Your task to perform on an android device: change timer sound Image 0: 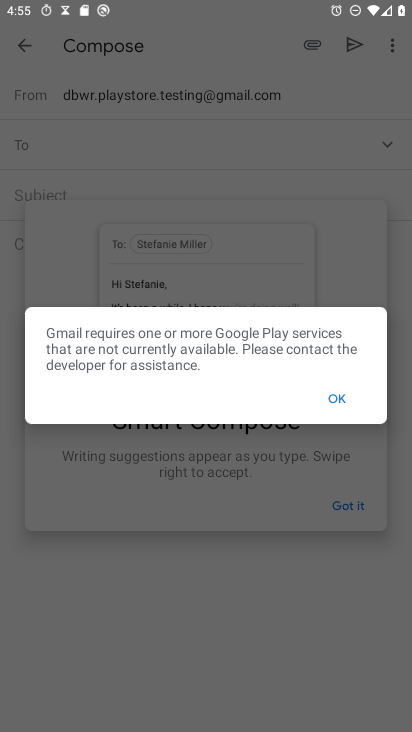
Step 0: press home button
Your task to perform on an android device: change timer sound Image 1: 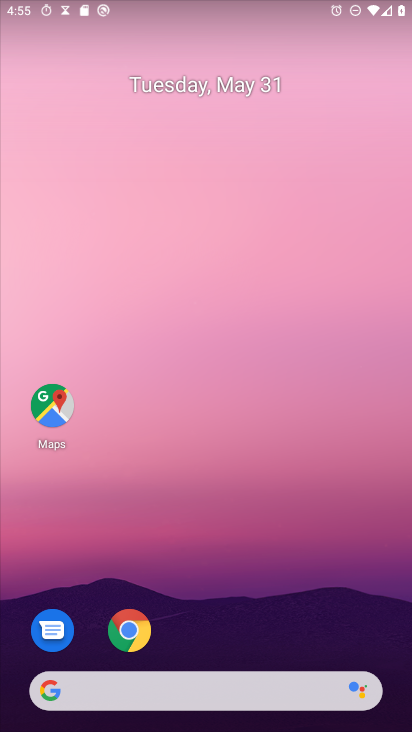
Step 1: drag from (266, 697) to (318, 38)
Your task to perform on an android device: change timer sound Image 2: 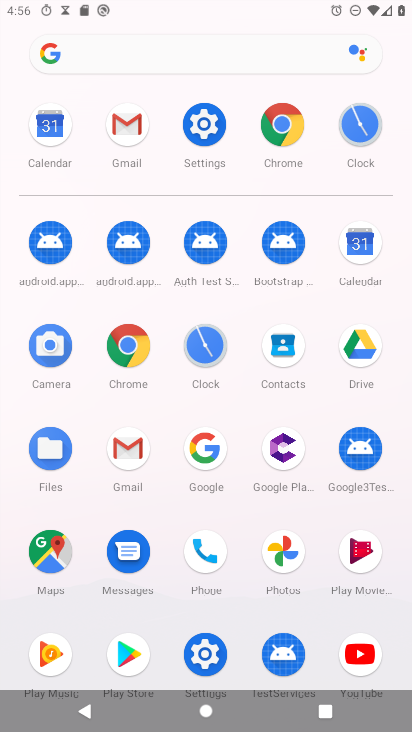
Step 2: click (204, 128)
Your task to perform on an android device: change timer sound Image 3: 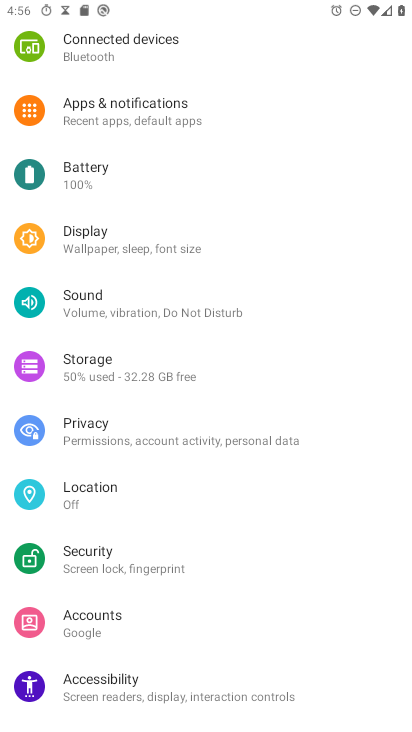
Step 3: drag from (164, 186) to (190, 98)
Your task to perform on an android device: change timer sound Image 4: 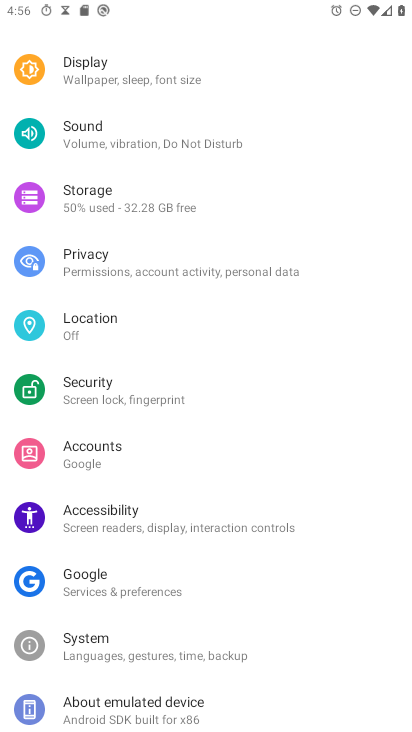
Step 4: drag from (178, 252) to (242, 714)
Your task to perform on an android device: change timer sound Image 5: 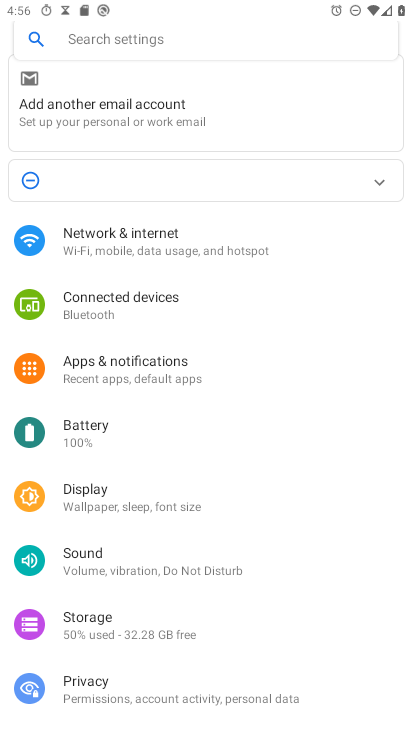
Step 5: drag from (173, 727) to (222, 165)
Your task to perform on an android device: change timer sound Image 6: 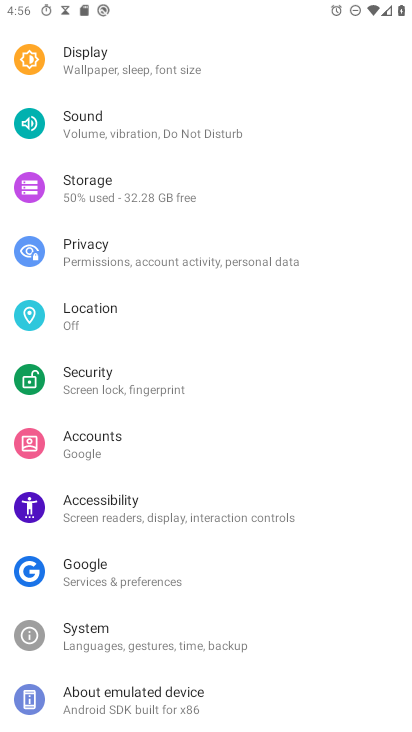
Step 6: press home button
Your task to perform on an android device: change timer sound Image 7: 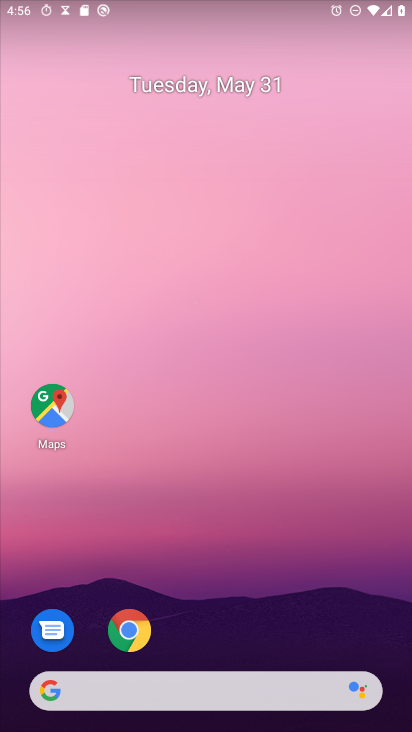
Step 7: drag from (269, 679) to (301, 49)
Your task to perform on an android device: change timer sound Image 8: 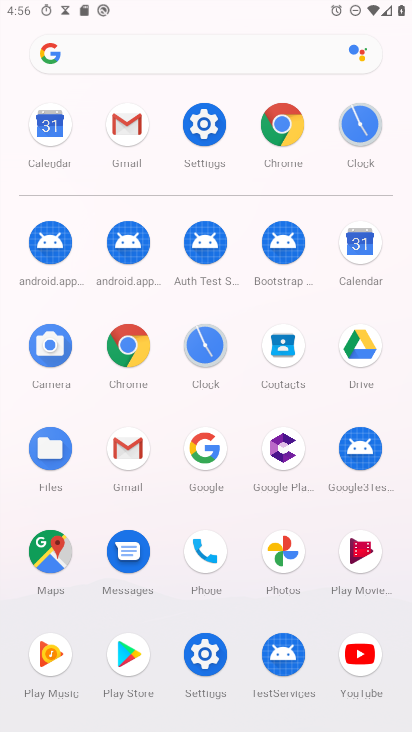
Step 8: click (204, 345)
Your task to perform on an android device: change timer sound Image 9: 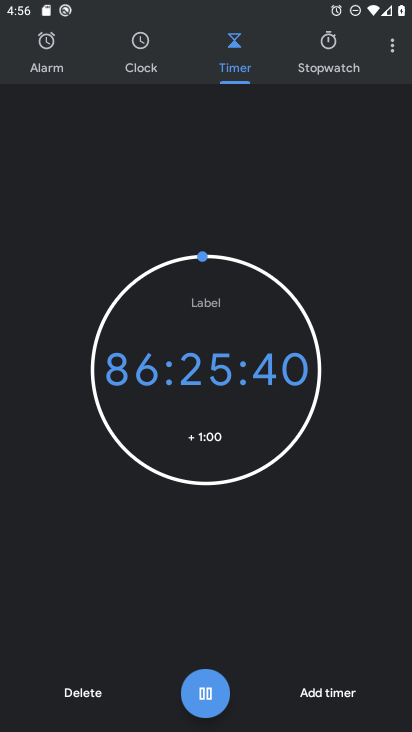
Step 9: click (387, 44)
Your task to perform on an android device: change timer sound Image 10: 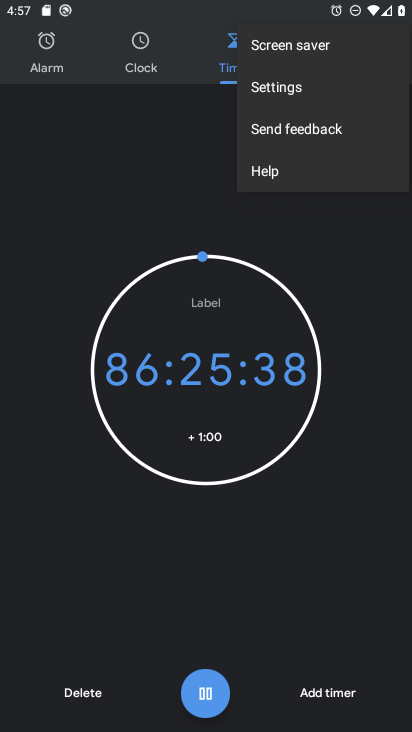
Step 10: click (312, 93)
Your task to perform on an android device: change timer sound Image 11: 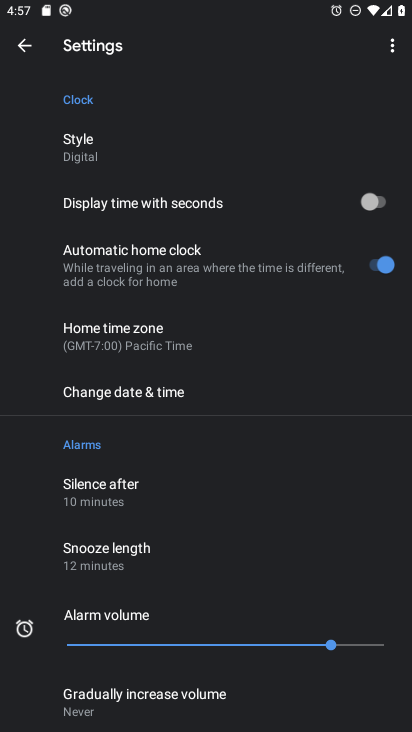
Step 11: click (152, 562)
Your task to perform on an android device: change timer sound Image 12: 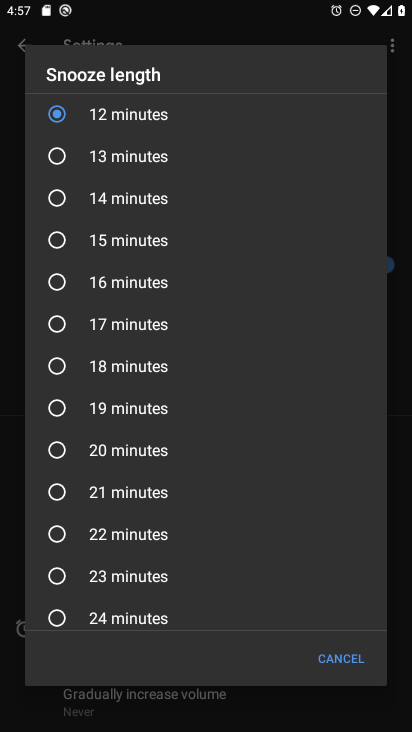
Step 12: press back button
Your task to perform on an android device: change timer sound Image 13: 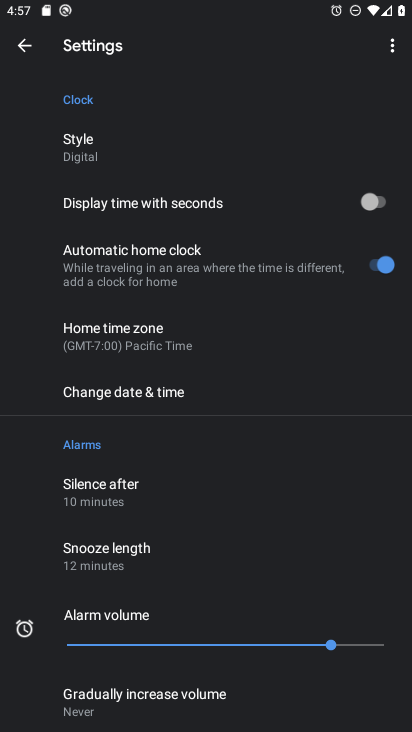
Step 13: drag from (358, 614) to (314, 30)
Your task to perform on an android device: change timer sound Image 14: 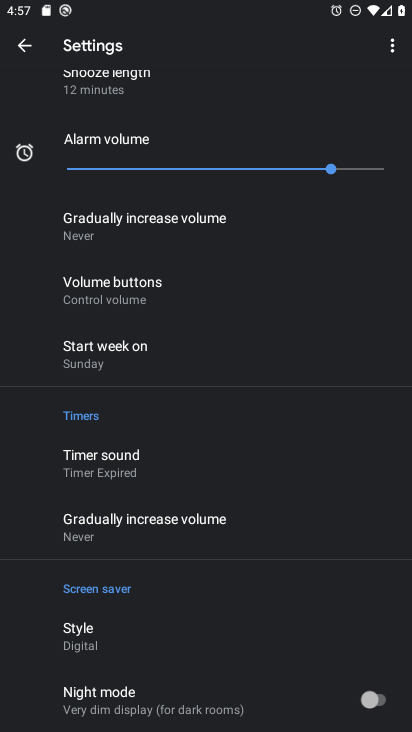
Step 14: click (137, 472)
Your task to perform on an android device: change timer sound Image 15: 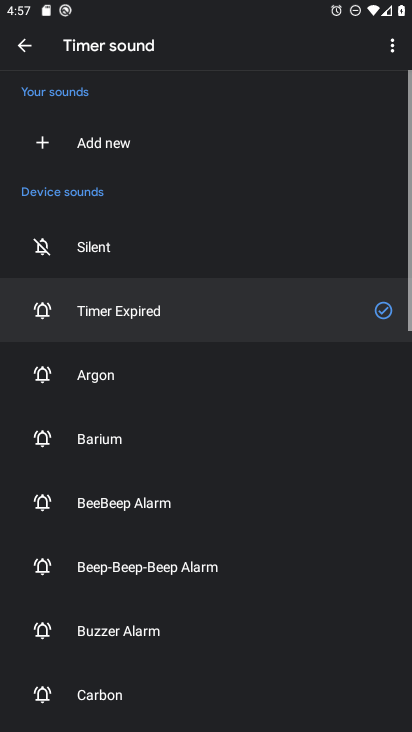
Step 15: click (113, 390)
Your task to perform on an android device: change timer sound Image 16: 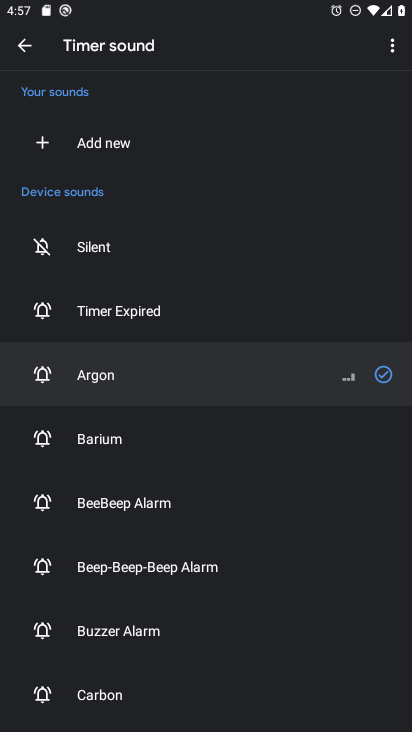
Step 16: task complete